Your task to perform on an android device: check out phone information Image 0: 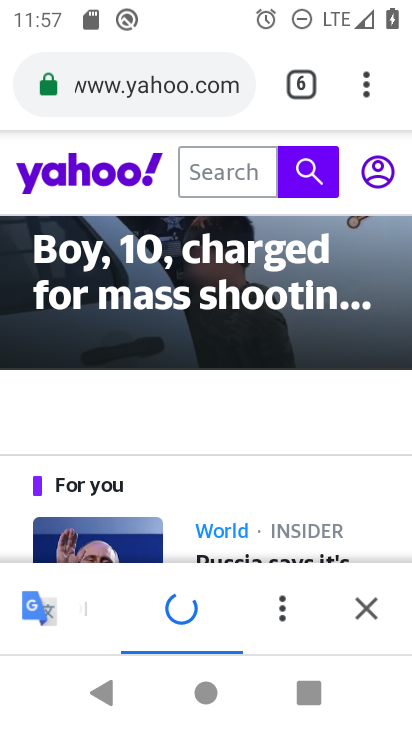
Step 0: press home button
Your task to perform on an android device: check out phone information Image 1: 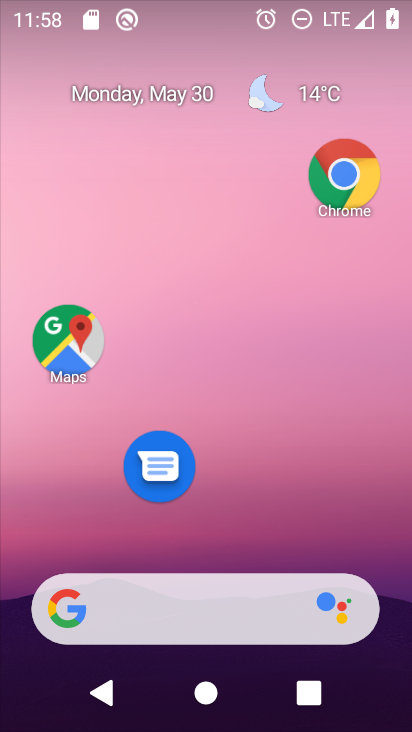
Step 1: drag from (245, 546) to (233, 47)
Your task to perform on an android device: check out phone information Image 2: 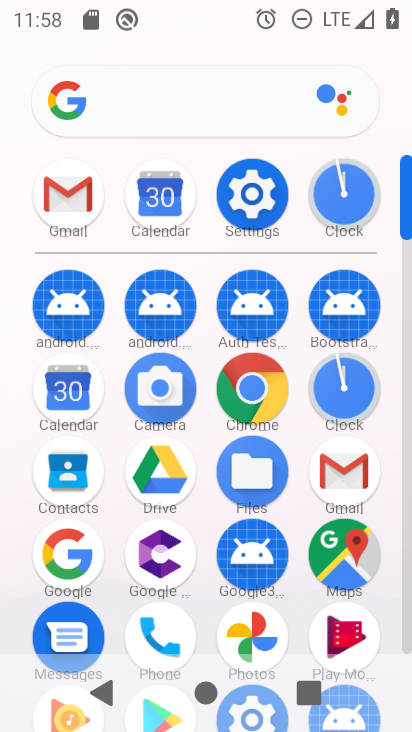
Step 2: click (255, 188)
Your task to perform on an android device: check out phone information Image 3: 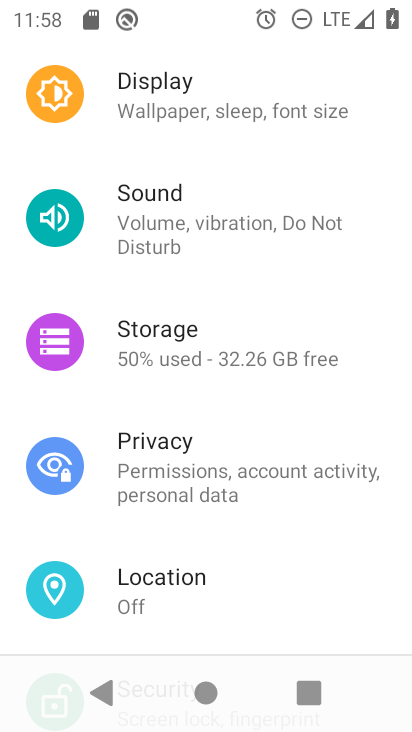
Step 3: drag from (236, 565) to (260, 53)
Your task to perform on an android device: check out phone information Image 4: 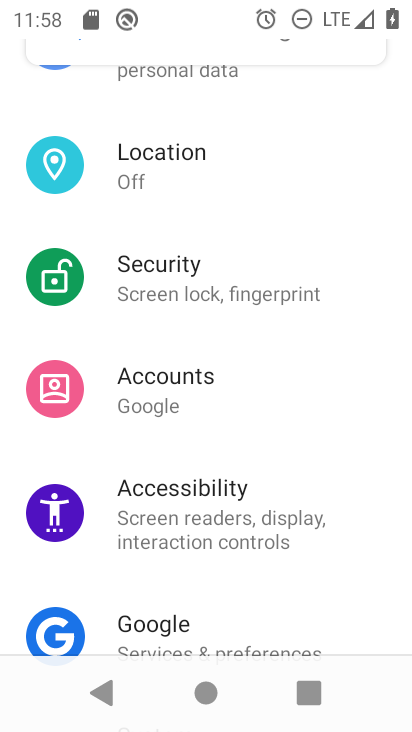
Step 4: drag from (232, 541) to (264, 140)
Your task to perform on an android device: check out phone information Image 5: 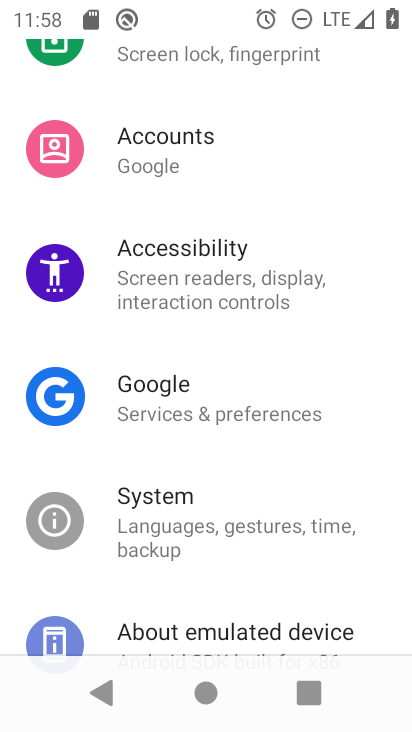
Step 5: click (221, 616)
Your task to perform on an android device: check out phone information Image 6: 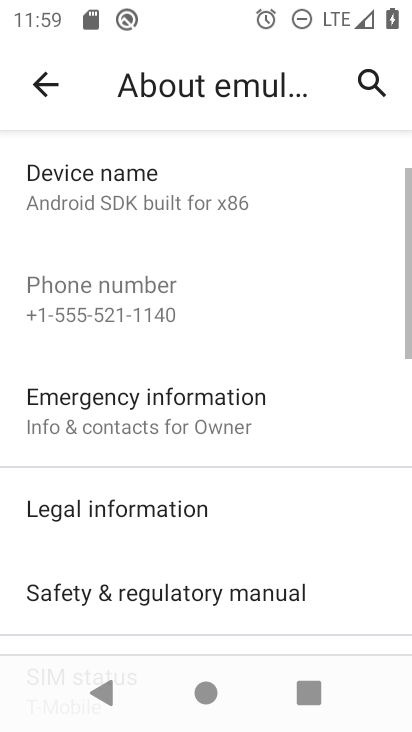
Step 6: drag from (256, 561) to (291, 298)
Your task to perform on an android device: check out phone information Image 7: 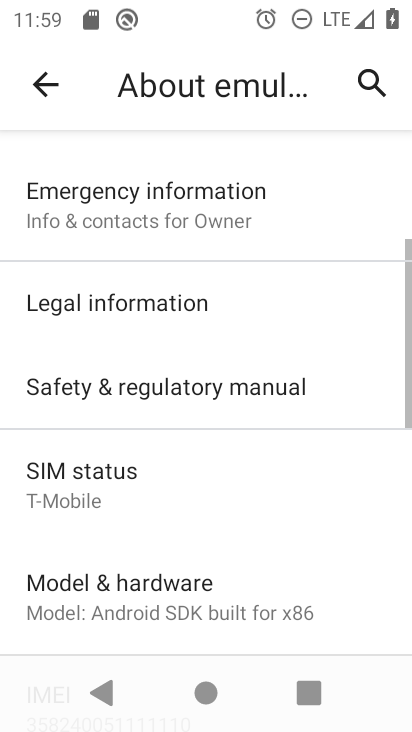
Step 7: drag from (256, 591) to (302, 181)
Your task to perform on an android device: check out phone information Image 8: 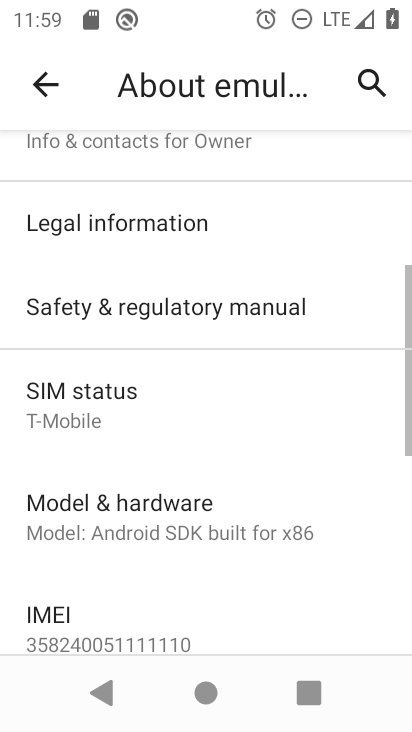
Step 8: click (240, 521)
Your task to perform on an android device: check out phone information Image 9: 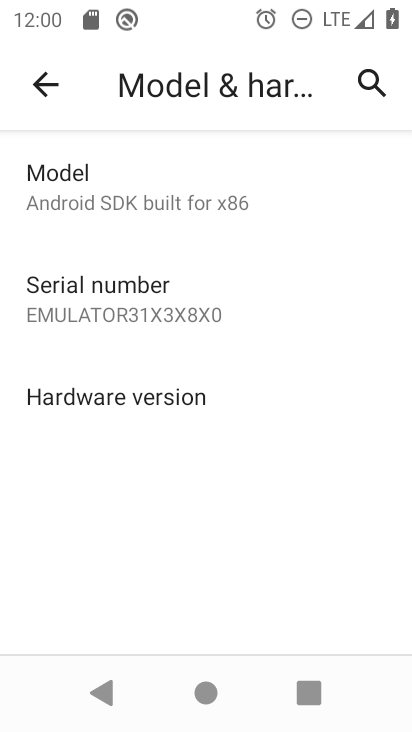
Step 9: task complete